Your task to perform on an android device: turn notification dots off Image 0: 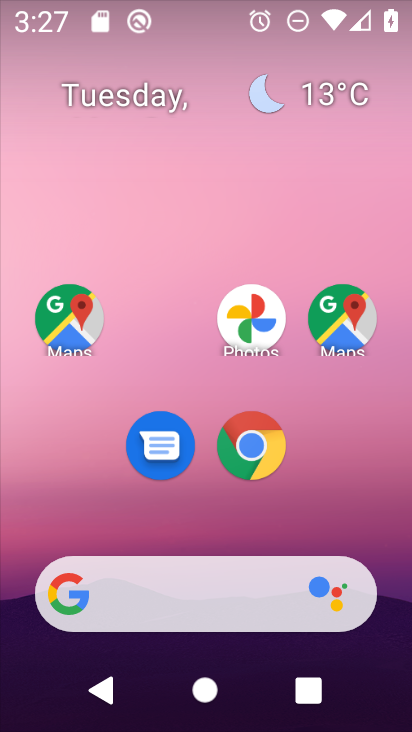
Step 0: drag from (392, 612) to (399, 241)
Your task to perform on an android device: turn notification dots off Image 1: 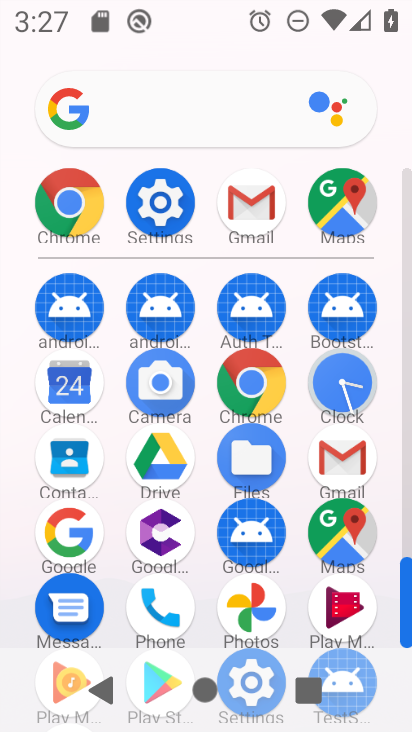
Step 1: click (174, 200)
Your task to perform on an android device: turn notification dots off Image 2: 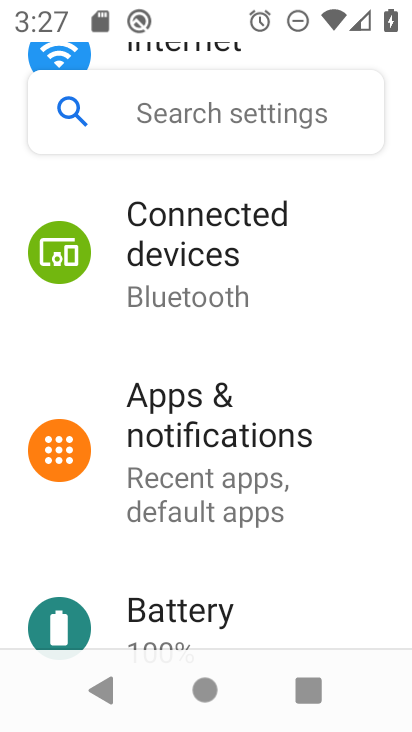
Step 2: drag from (356, 271) to (357, 369)
Your task to perform on an android device: turn notification dots off Image 3: 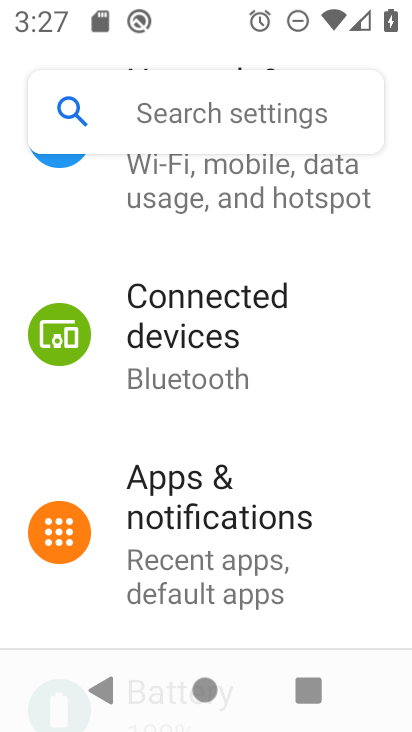
Step 3: drag from (346, 549) to (348, 452)
Your task to perform on an android device: turn notification dots off Image 4: 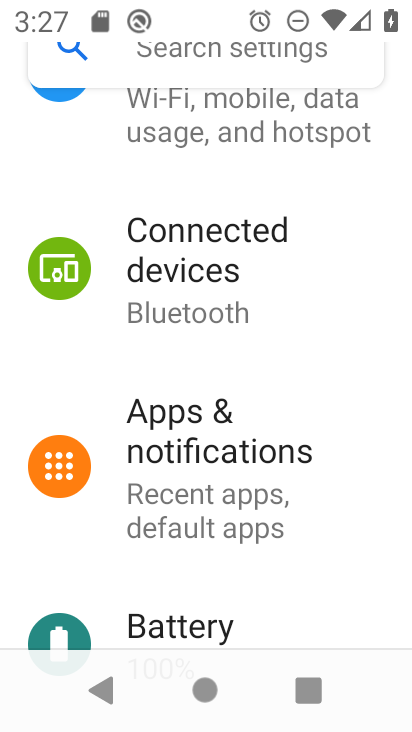
Step 4: drag from (362, 623) to (361, 514)
Your task to perform on an android device: turn notification dots off Image 5: 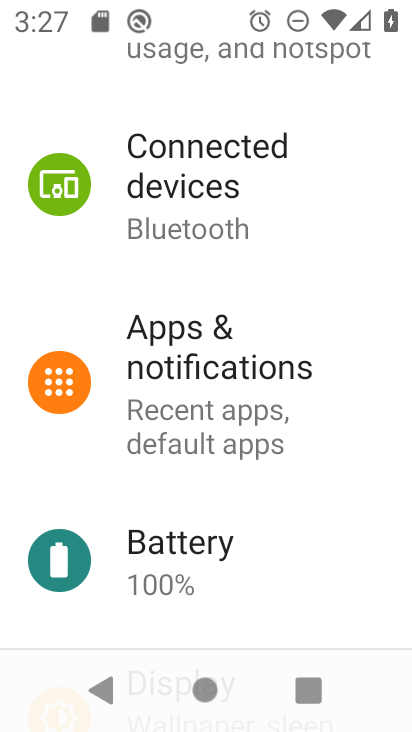
Step 5: click (279, 392)
Your task to perform on an android device: turn notification dots off Image 6: 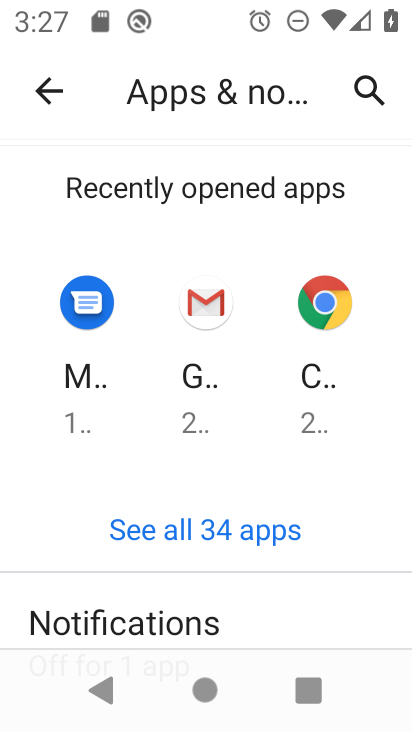
Step 6: drag from (374, 555) to (369, 462)
Your task to perform on an android device: turn notification dots off Image 7: 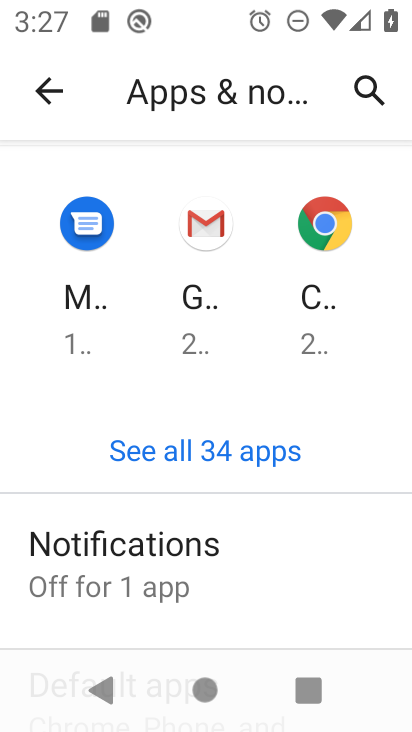
Step 7: drag from (363, 598) to (357, 498)
Your task to perform on an android device: turn notification dots off Image 8: 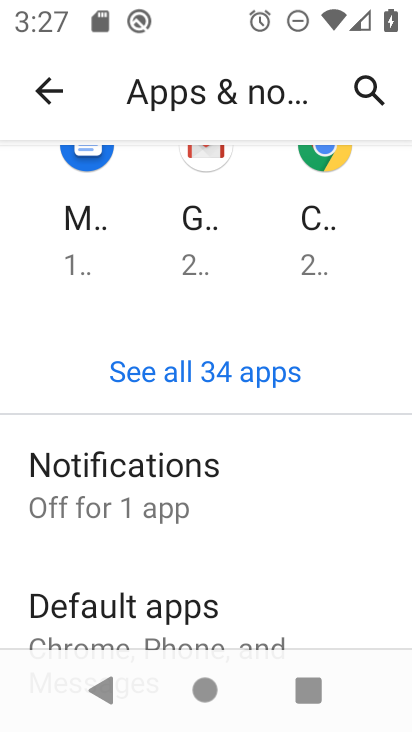
Step 8: drag from (350, 632) to (351, 510)
Your task to perform on an android device: turn notification dots off Image 9: 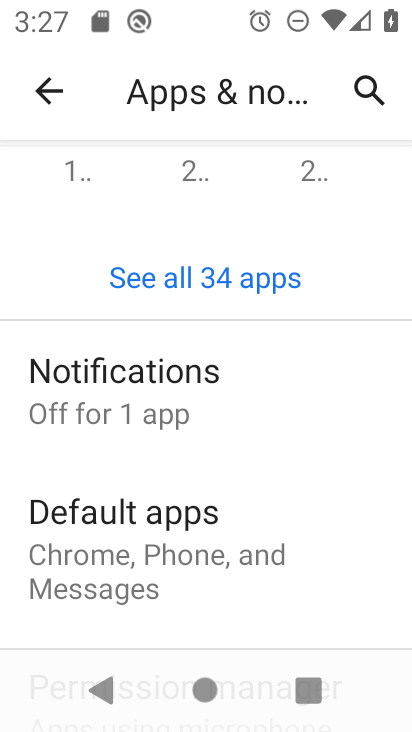
Step 9: drag from (349, 602) to (344, 511)
Your task to perform on an android device: turn notification dots off Image 10: 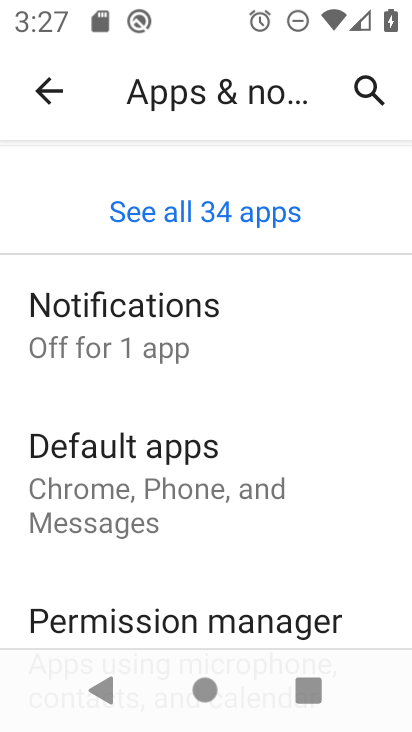
Step 10: drag from (349, 606) to (349, 503)
Your task to perform on an android device: turn notification dots off Image 11: 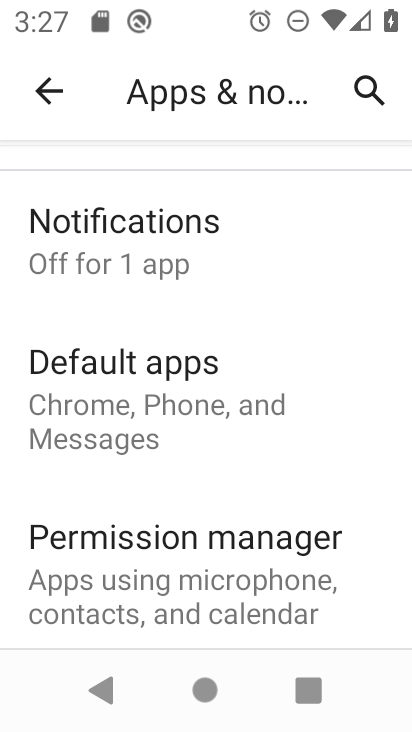
Step 11: drag from (356, 615) to (356, 512)
Your task to perform on an android device: turn notification dots off Image 12: 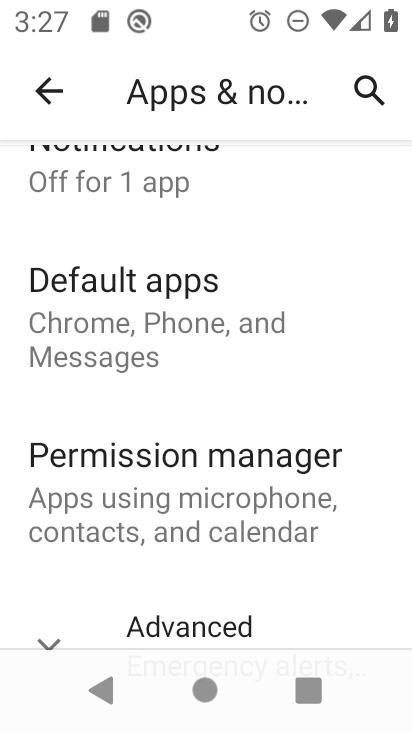
Step 12: drag from (351, 608) to (361, 482)
Your task to perform on an android device: turn notification dots off Image 13: 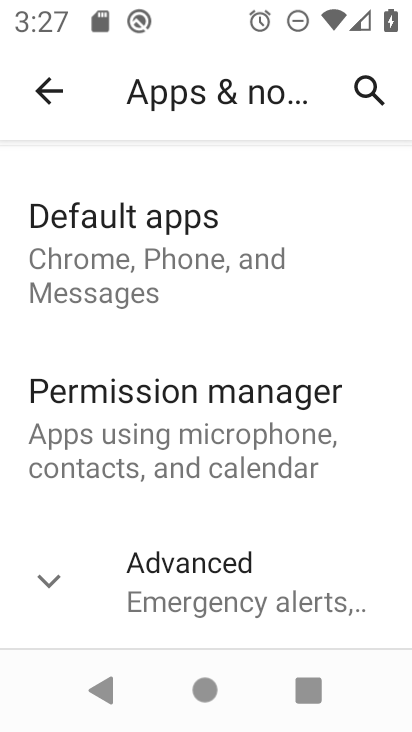
Step 13: drag from (354, 342) to (357, 548)
Your task to perform on an android device: turn notification dots off Image 14: 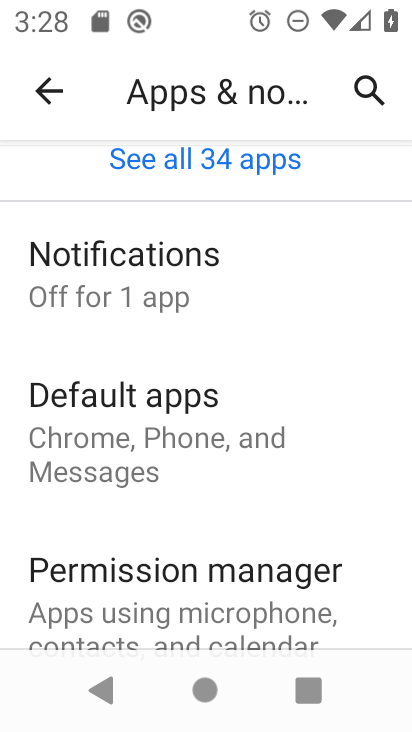
Step 14: click (184, 283)
Your task to perform on an android device: turn notification dots off Image 15: 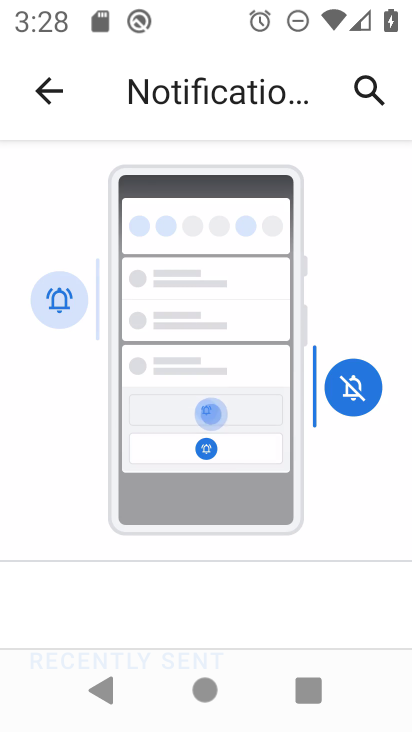
Step 15: drag from (320, 569) to (320, 452)
Your task to perform on an android device: turn notification dots off Image 16: 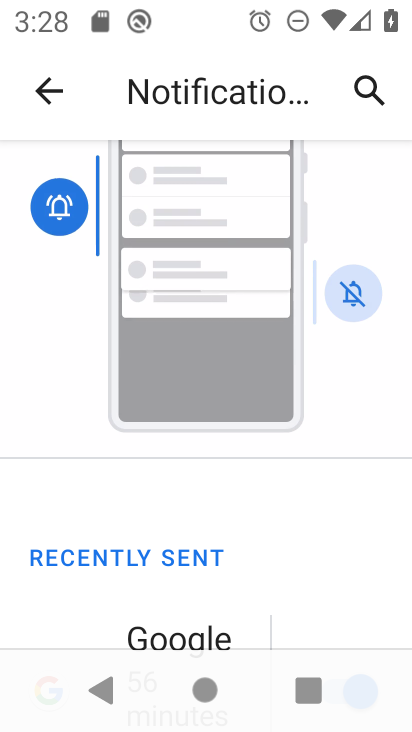
Step 16: drag from (316, 606) to (324, 461)
Your task to perform on an android device: turn notification dots off Image 17: 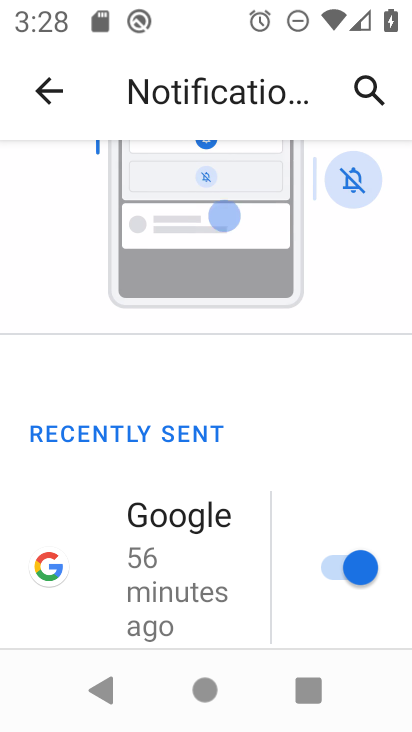
Step 17: drag from (298, 601) to (305, 485)
Your task to perform on an android device: turn notification dots off Image 18: 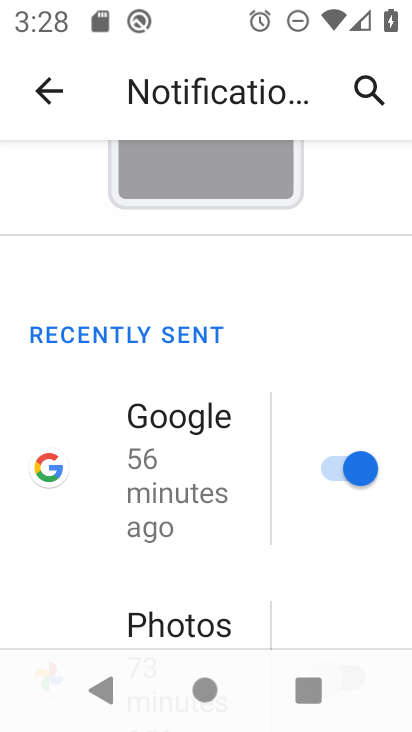
Step 18: drag from (304, 618) to (309, 482)
Your task to perform on an android device: turn notification dots off Image 19: 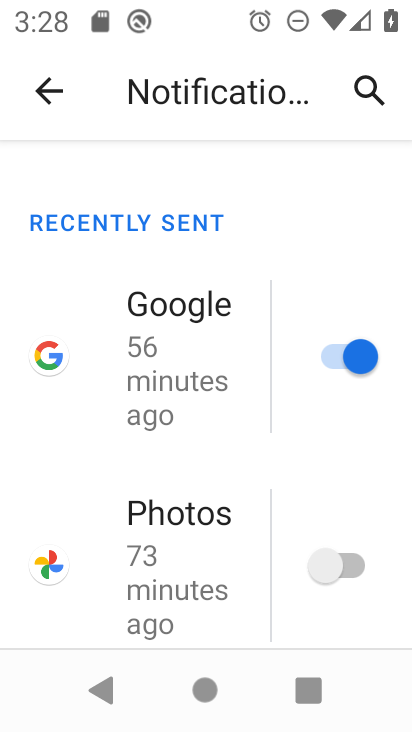
Step 19: drag from (284, 594) to (283, 522)
Your task to perform on an android device: turn notification dots off Image 20: 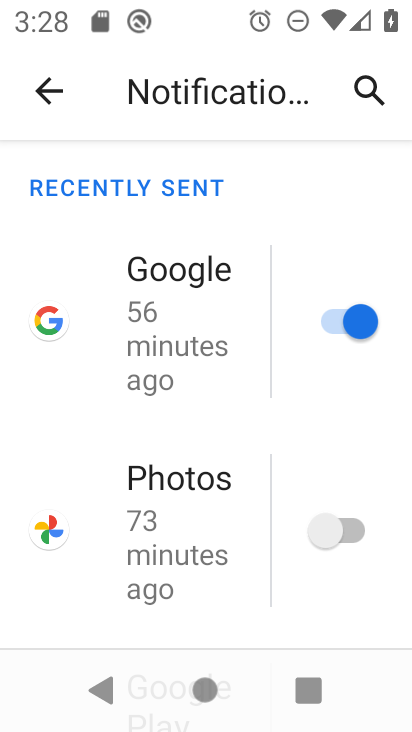
Step 20: drag from (280, 617) to (279, 506)
Your task to perform on an android device: turn notification dots off Image 21: 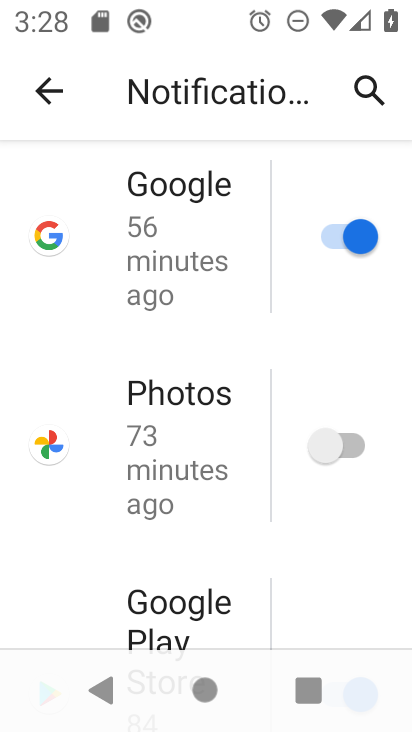
Step 21: drag from (251, 613) to (255, 500)
Your task to perform on an android device: turn notification dots off Image 22: 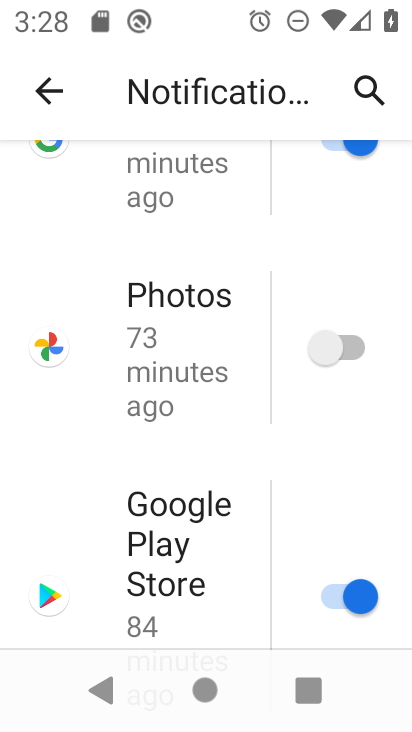
Step 22: drag from (242, 602) to (243, 517)
Your task to perform on an android device: turn notification dots off Image 23: 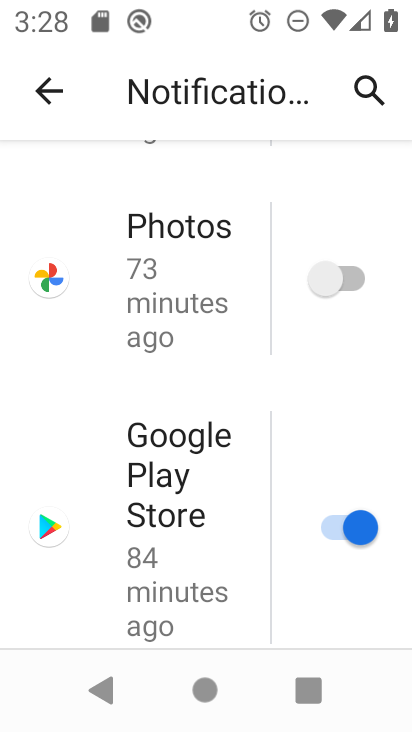
Step 23: drag from (249, 621) to (249, 518)
Your task to perform on an android device: turn notification dots off Image 24: 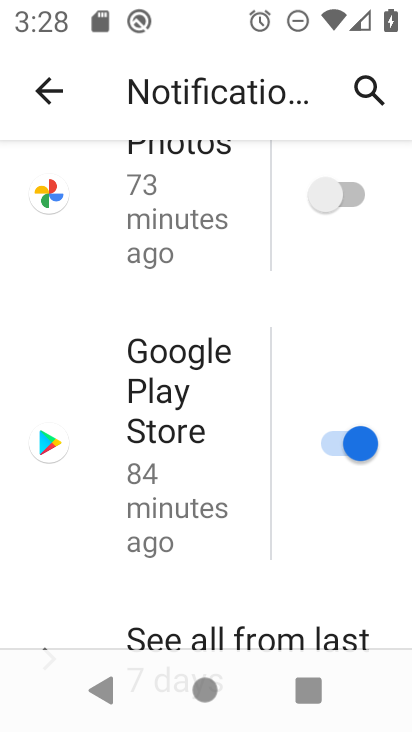
Step 24: drag from (246, 611) to (250, 492)
Your task to perform on an android device: turn notification dots off Image 25: 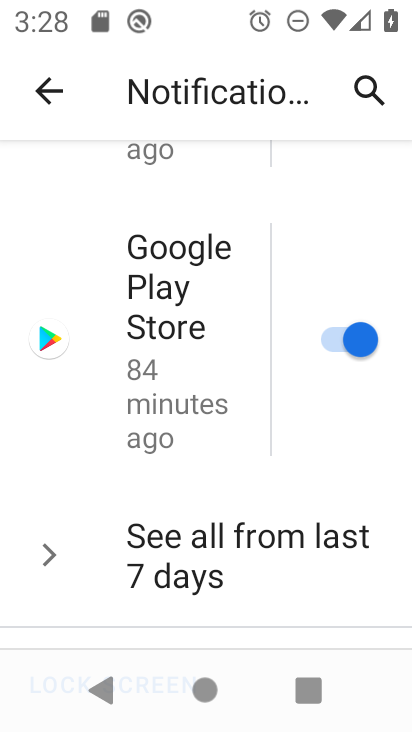
Step 25: drag from (264, 598) to (266, 490)
Your task to perform on an android device: turn notification dots off Image 26: 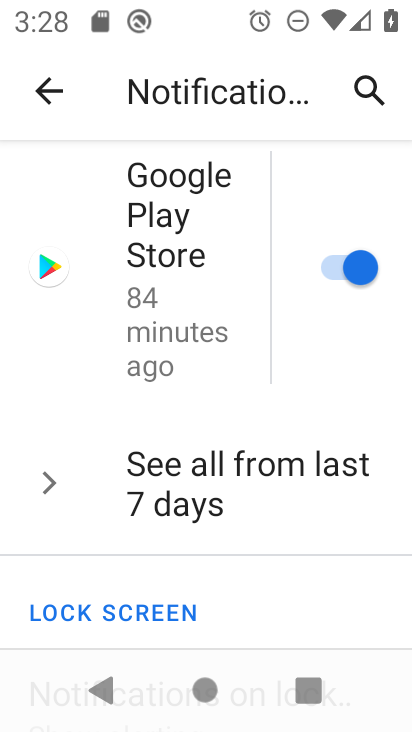
Step 26: drag from (256, 596) to (257, 478)
Your task to perform on an android device: turn notification dots off Image 27: 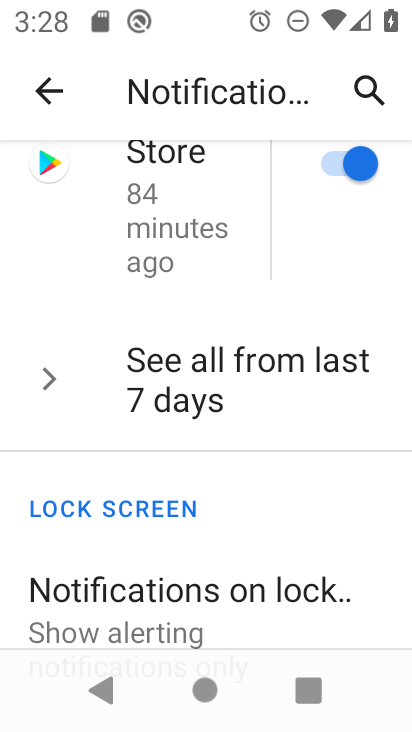
Step 27: drag from (263, 588) to (263, 451)
Your task to perform on an android device: turn notification dots off Image 28: 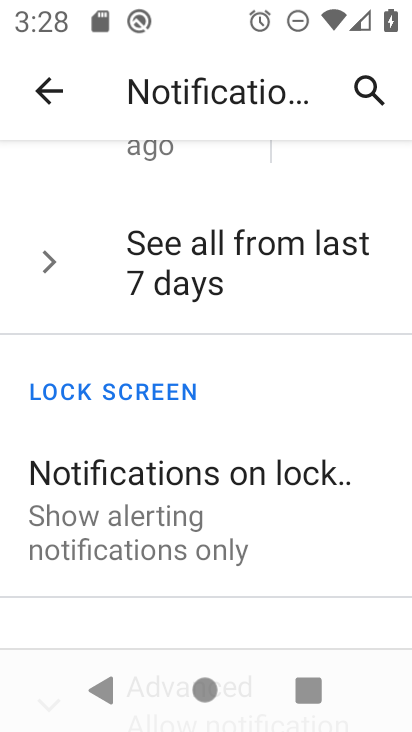
Step 28: drag from (348, 493) to (360, 285)
Your task to perform on an android device: turn notification dots off Image 29: 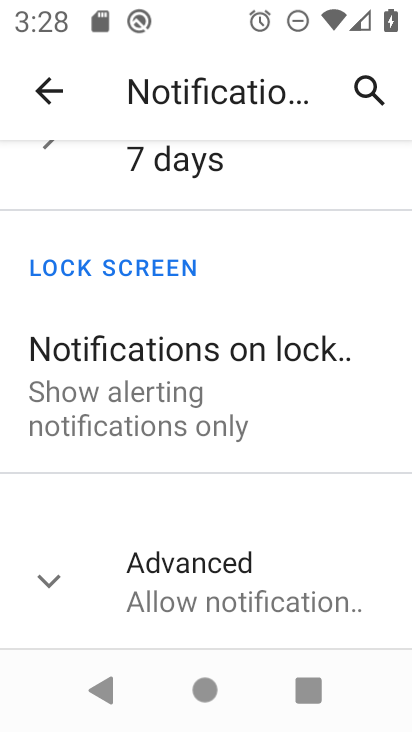
Step 29: click (351, 588)
Your task to perform on an android device: turn notification dots off Image 30: 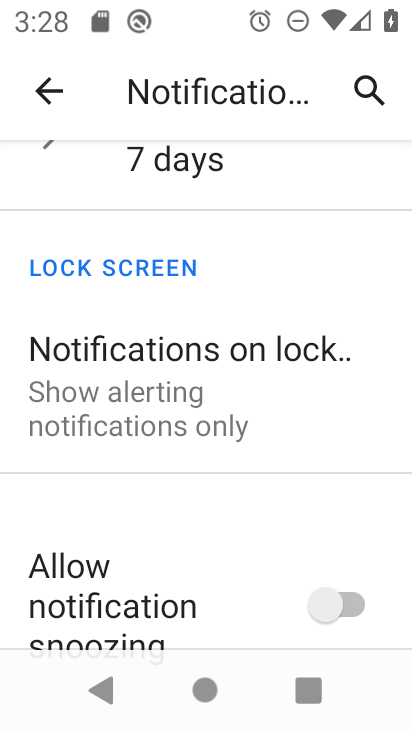
Step 30: task complete